Your task to perform on an android device: turn on showing notifications on the lock screen Image 0: 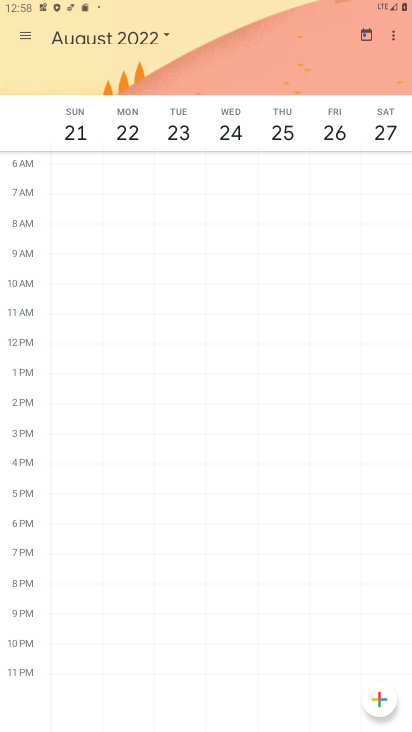
Step 0: press home button
Your task to perform on an android device: turn on showing notifications on the lock screen Image 1: 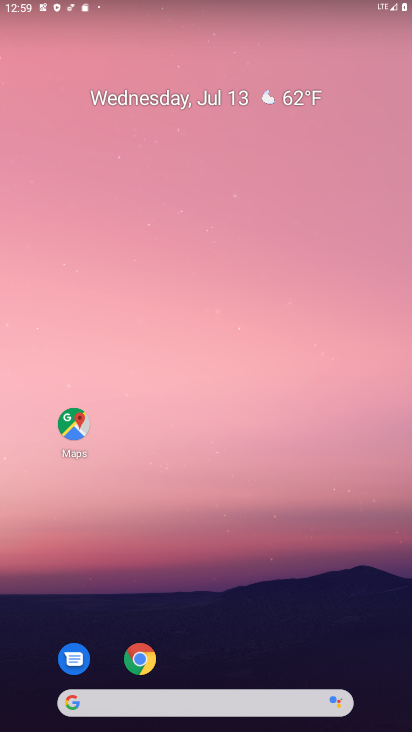
Step 1: drag from (215, 725) to (212, 242)
Your task to perform on an android device: turn on showing notifications on the lock screen Image 2: 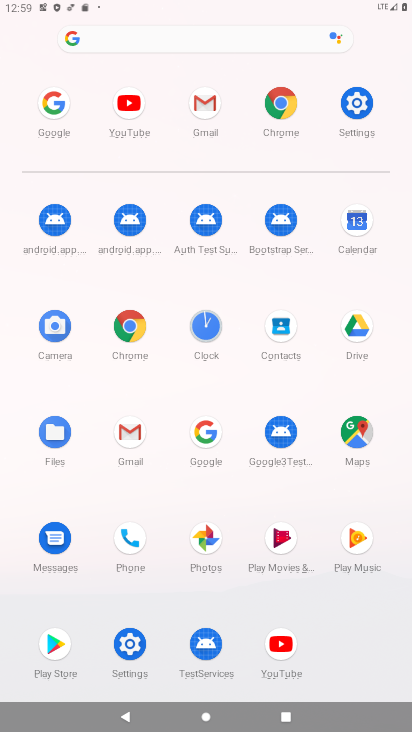
Step 2: click (358, 102)
Your task to perform on an android device: turn on showing notifications on the lock screen Image 3: 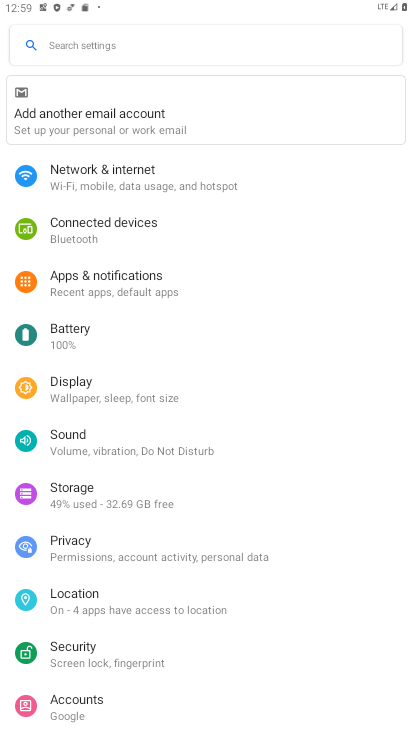
Step 3: click (120, 282)
Your task to perform on an android device: turn on showing notifications on the lock screen Image 4: 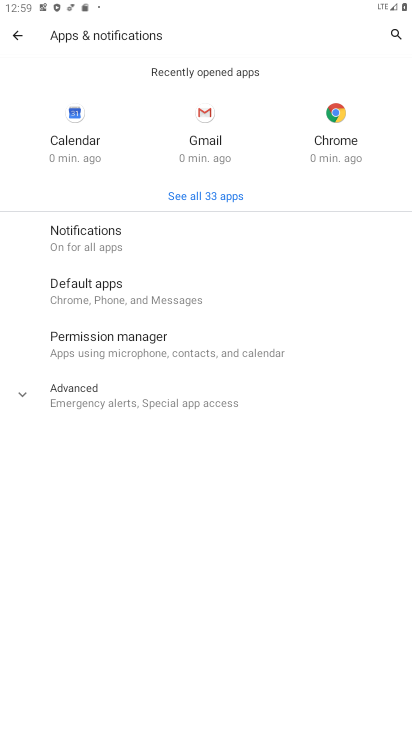
Step 4: click (81, 228)
Your task to perform on an android device: turn on showing notifications on the lock screen Image 5: 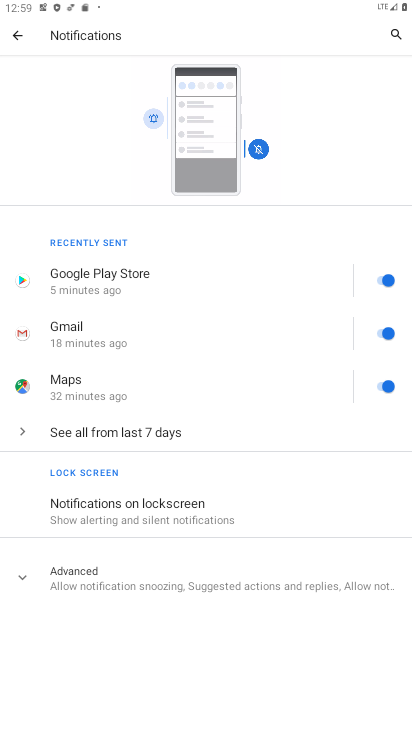
Step 5: click (157, 514)
Your task to perform on an android device: turn on showing notifications on the lock screen Image 6: 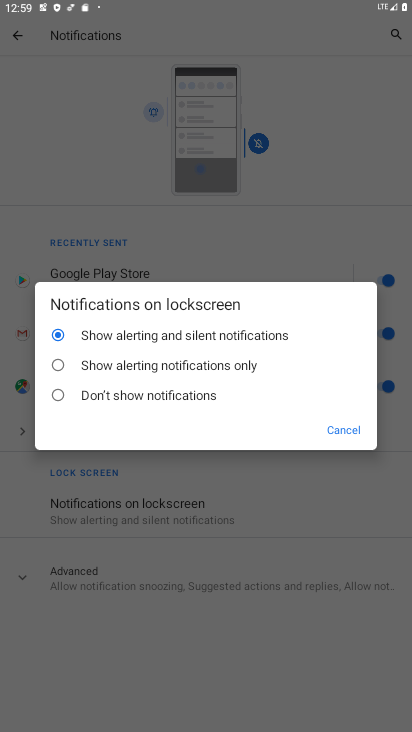
Step 6: click (342, 432)
Your task to perform on an android device: turn on showing notifications on the lock screen Image 7: 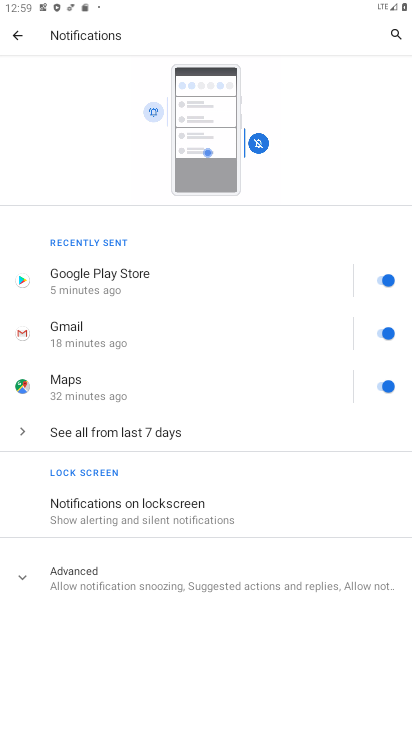
Step 7: task complete